Your task to perform on an android device: Search for sushi restaurants on Maps Image 0: 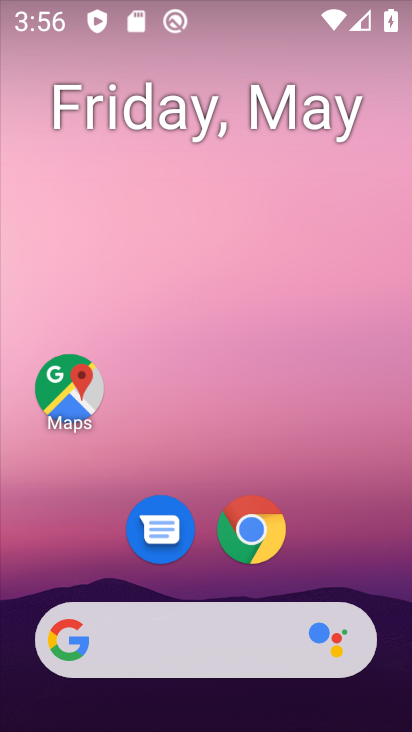
Step 0: drag from (230, 605) to (232, 209)
Your task to perform on an android device: Search for sushi restaurants on Maps Image 1: 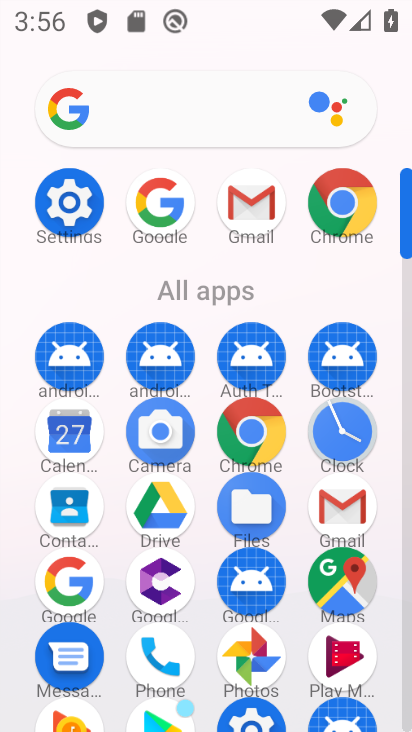
Step 1: click (331, 592)
Your task to perform on an android device: Search for sushi restaurants on Maps Image 2: 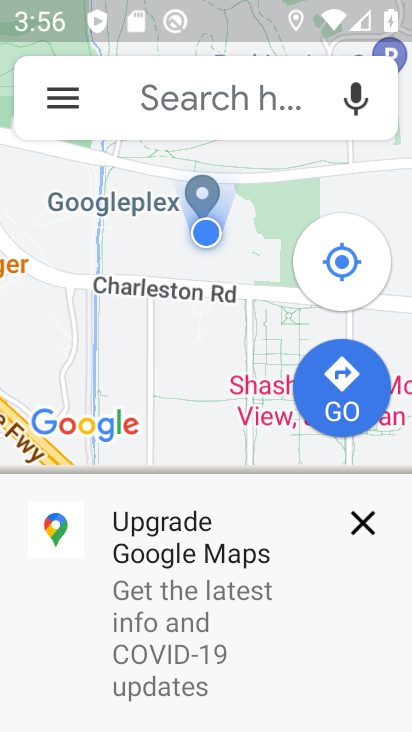
Step 2: click (249, 96)
Your task to perform on an android device: Search for sushi restaurants on Maps Image 3: 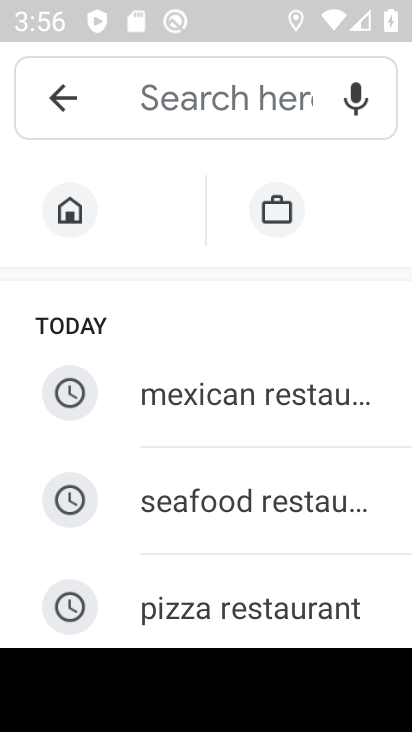
Step 3: drag from (189, 474) to (228, 160)
Your task to perform on an android device: Search for sushi restaurants on Maps Image 4: 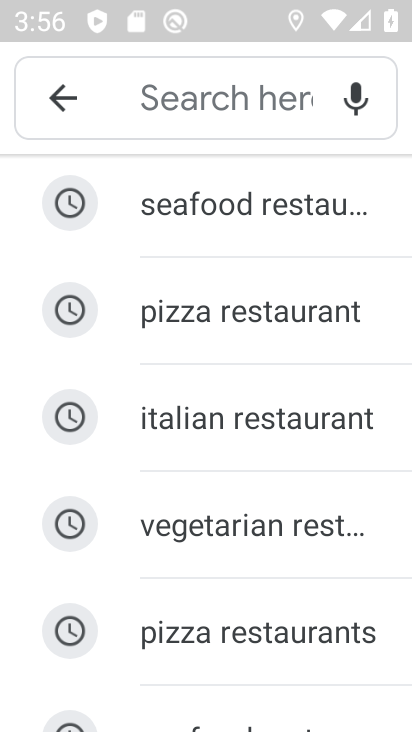
Step 4: drag from (210, 488) to (234, 335)
Your task to perform on an android device: Search for sushi restaurants on Maps Image 5: 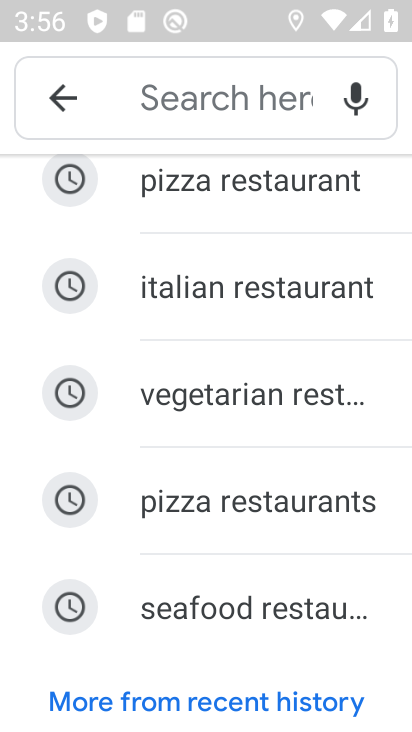
Step 5: drag from (199, 591) to (271, 269)
Your task to perform on an android device: Search for sushi restaurants on Maps Image 6: 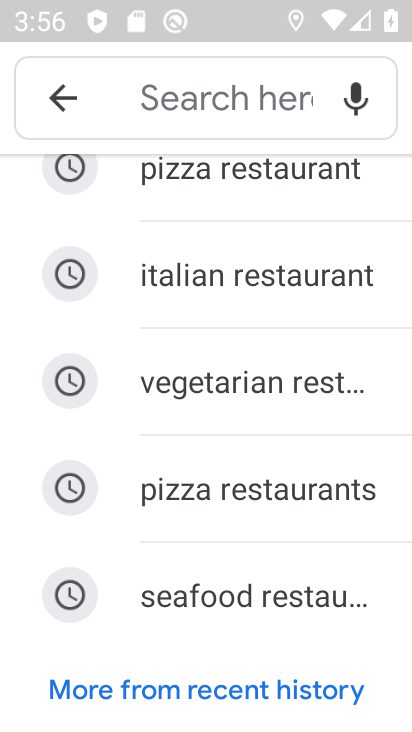
Step 6: click (220, 107)
Your task to perform on an android device: Search for sushi restaurants on Maps Image 7: 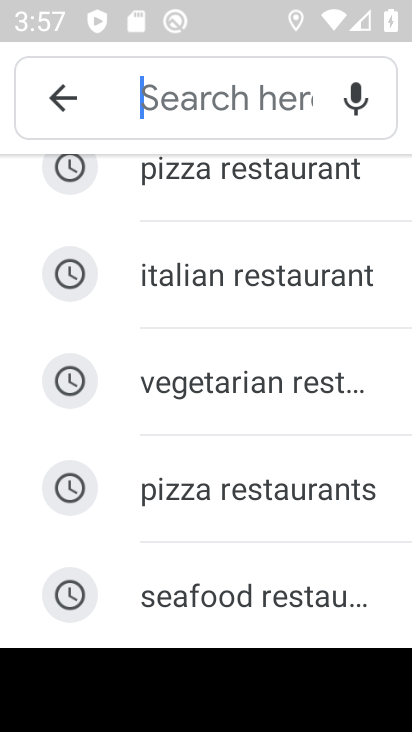
Step 7: type "sushi "
Your task to perform on an android device: Search for sushi restaurants on Maps Image 8: 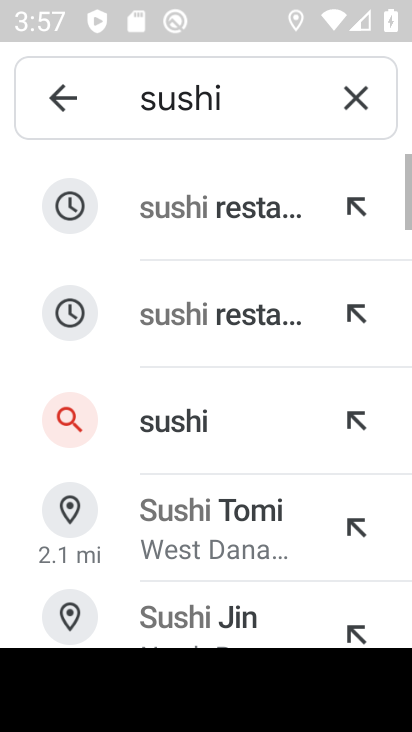
Step 8: click (254, 213)
Your task to perform on an android device: Search for sushi restaurants on Maps Image 9: 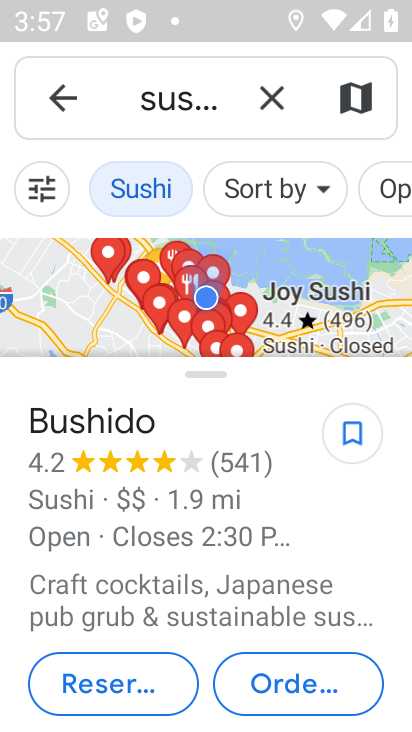
Step 9: task complete